Your task to perform on an android device: Search for pizza restaurants on Maps Image 0: 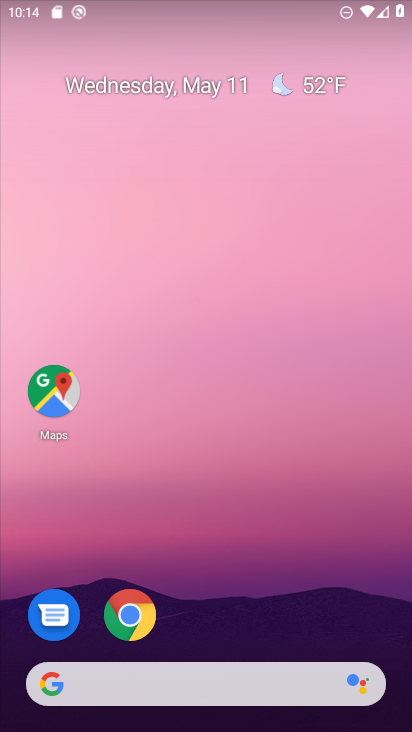
Step 0: click (49, 391)
Your task to perform on an android device: Search for pizza restaurants on Maps Image 1: 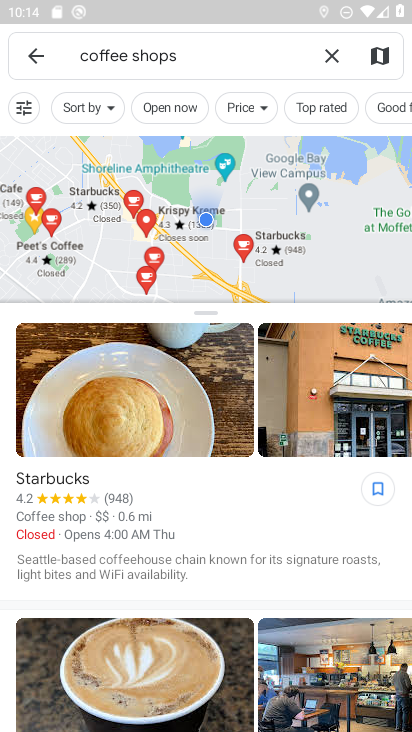
Step 1: click (331, 57)
Your task to perform on an android device: Search for pizza restaurants on Maps Image 2: 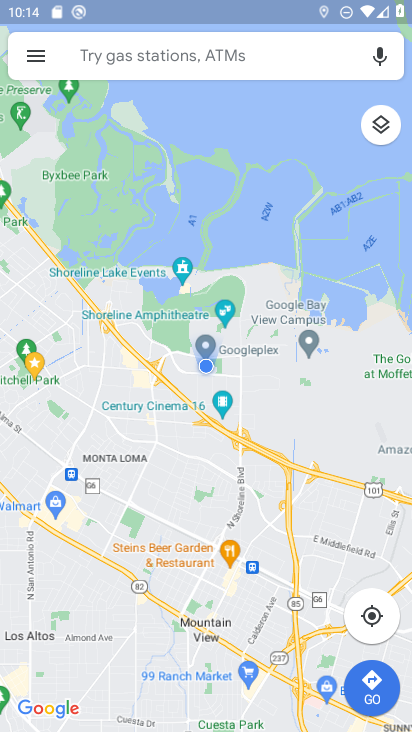
Step 2: click (227, 55)
Your task to perform on an android device: Search for pizza restaurants on Maps Image 3: 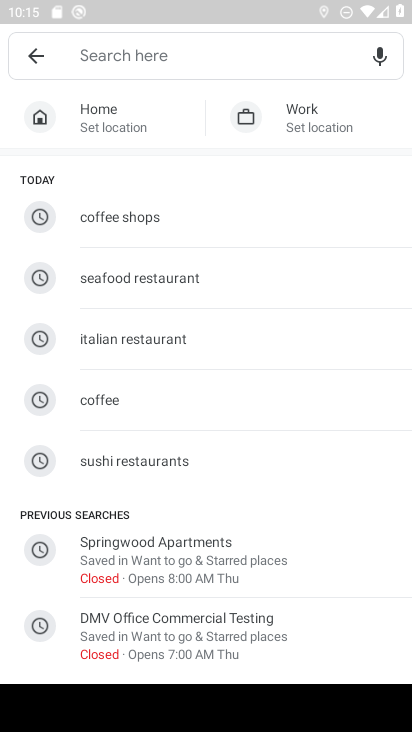
Step 3: type "pizza restaurants"
Your task to perform on an android device: Search for pizza restaurants on Maps Image 4: 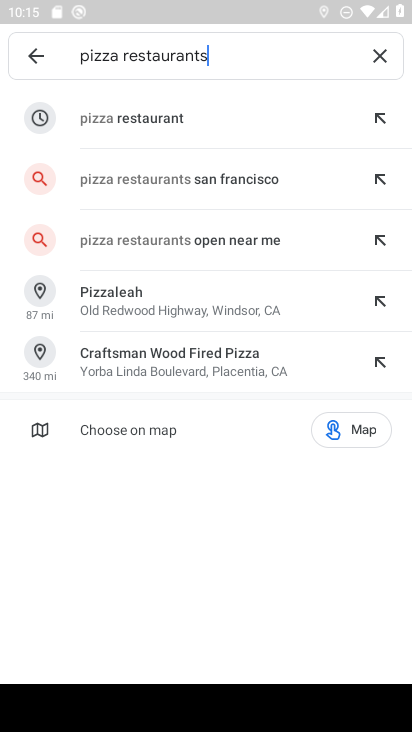
Step 4: click (173, 115)
Your task to perform on an android device: Search for pizza restaurants on Maps Image 5: 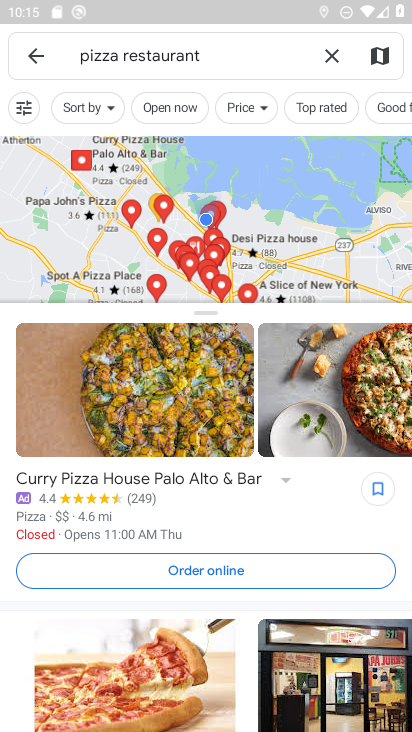
Step 5: task complete